Your task to perform on an android device: open a bookmark in the chrome app Image 0: 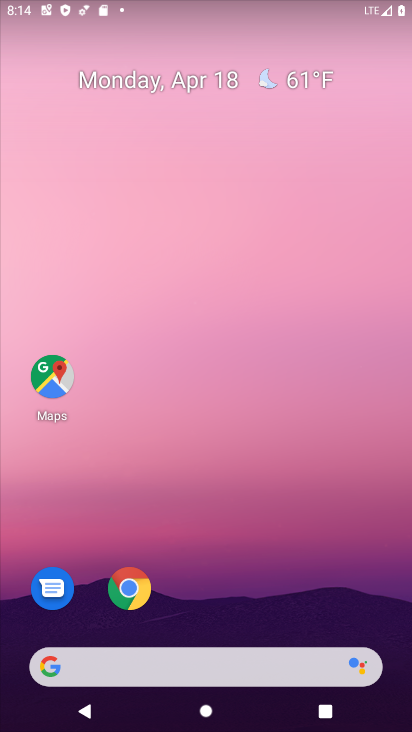
Step 0: click (126, 580)
Your task to perform on an android device: open a bookmark in the chrome app Image 1: 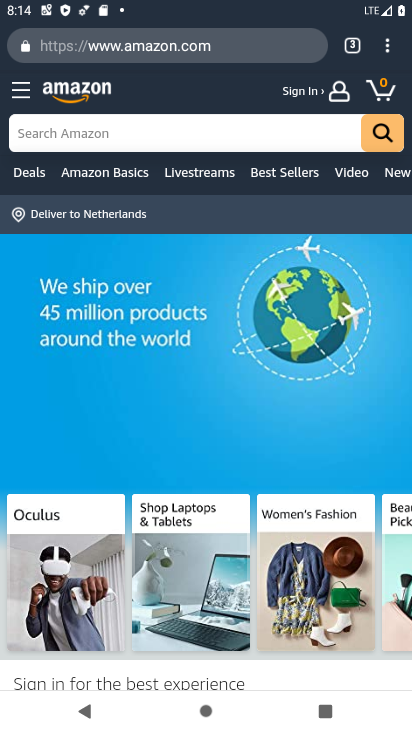
Step 1: click (389, 47)
Your task to perform on an android device: open a bookmark in the chrome app Image 2: 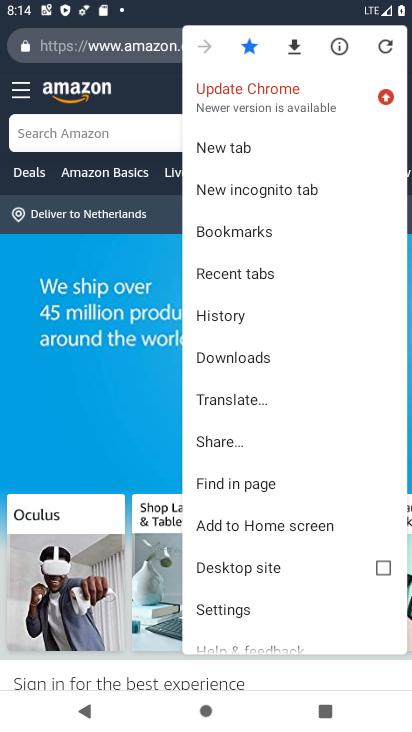
Step 2: click (234, 225)
Your task to perform on an android device: open a bookmark in the chrome app Image 3: 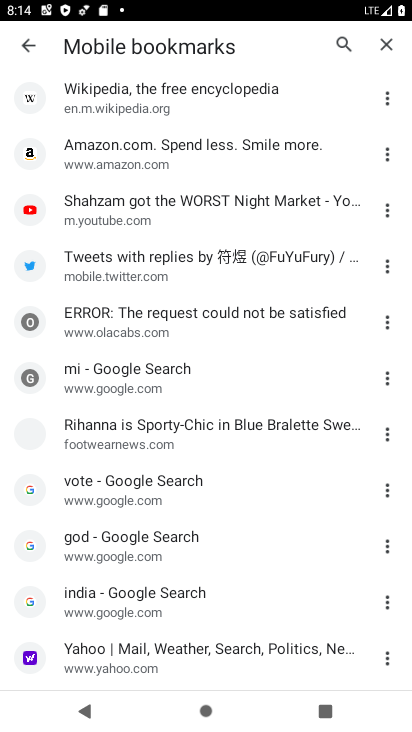
Step 3: click (115, 262)
Your task to perform on an android device: open a bookmark in the chrome app Image 4: 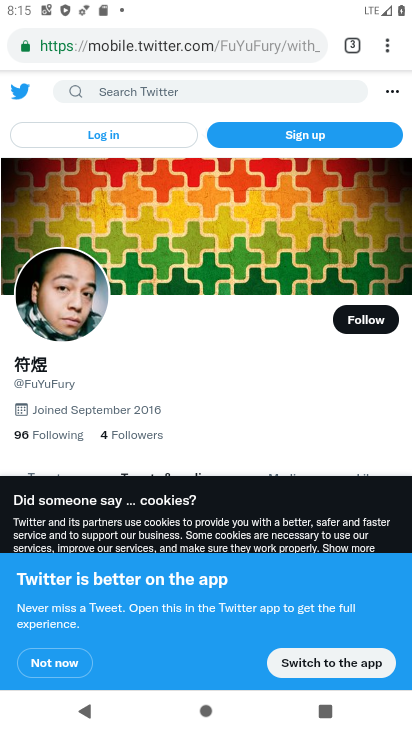
Step 4: task complete